Your task to perform on an android device: visit the assistant section in the google photos Image 0: 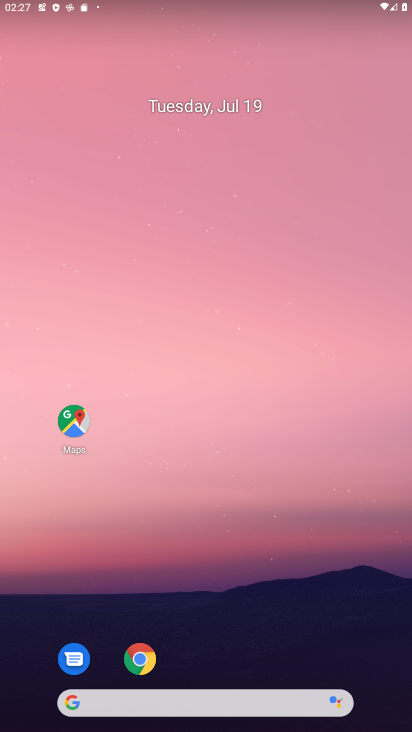
Step 0: press home button
Your task to perform on an android device: visit the assistant section in the google photos Image 1: 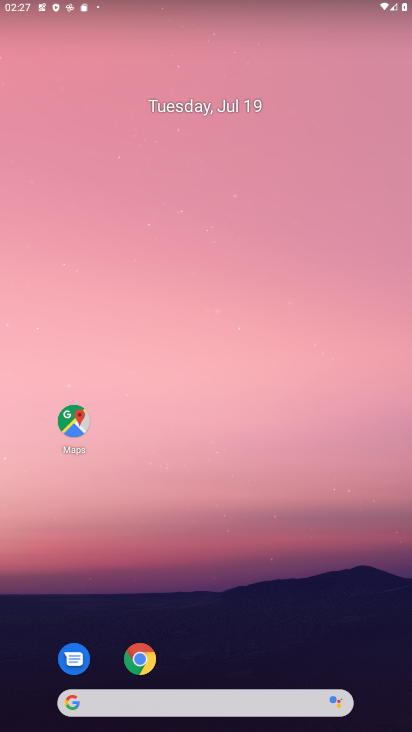
Step 1: drag from (275, 665) to (315, 113)
Your task to perform on an android device: visit the assistant section in the google photos Image 2: 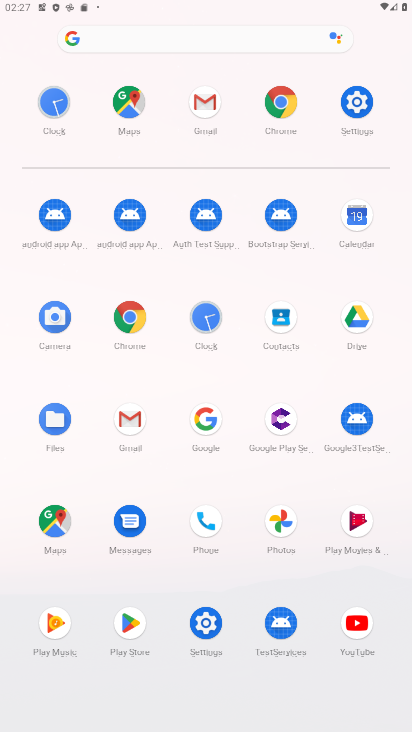
Step 2: click (272, 532)
Your task to perform on an android device: visit the assistant section in the google photos Image 3: 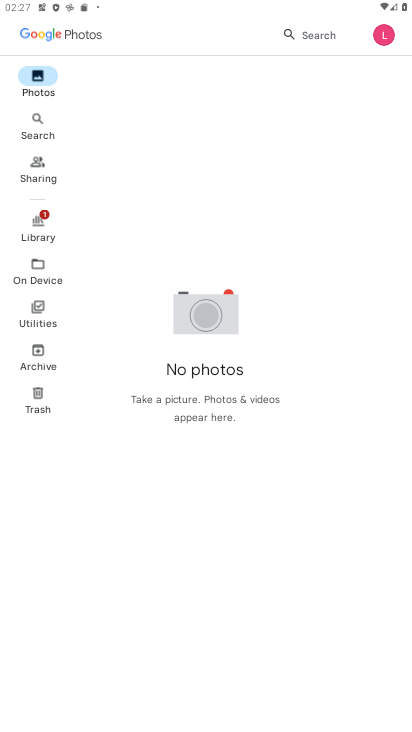
Step 3: task complete